Your task to perform on an android device: turn off data saver in the chrome app Image 0: 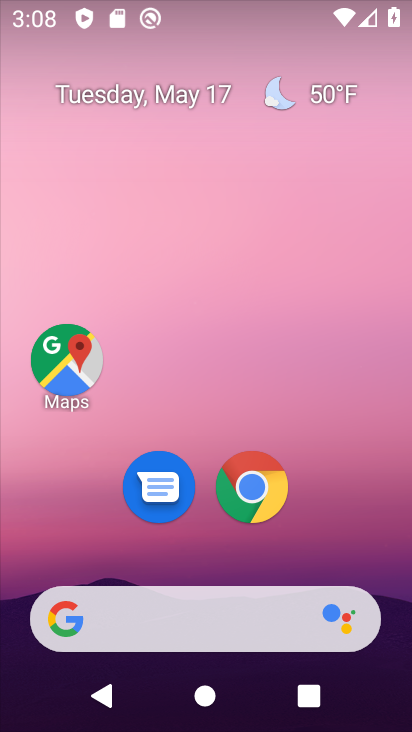
Step 0: click (250, 488)
Your task to perform on an android device: turn off data saver in the chrome app Image 1: 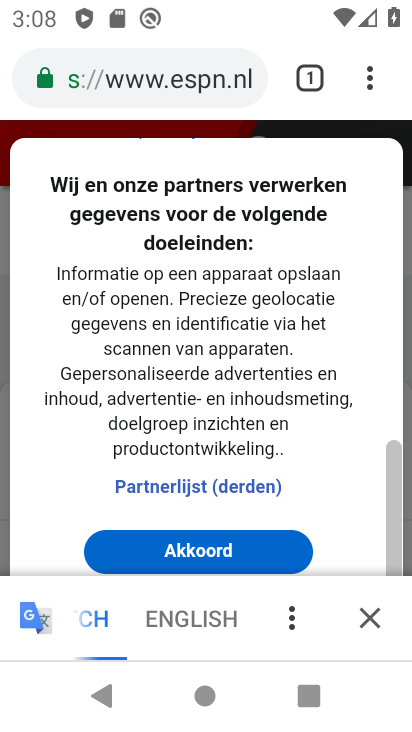
Step 1: click (375, 85)
Your task to perform on an android device: turn off data saver in the chrome app Image 2: 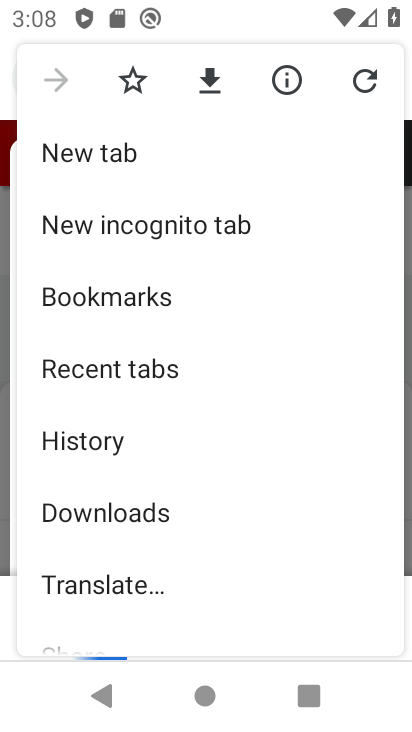
Step 2: drag from (212, 567) to (269, 253)
Your task to perform on an android device: turn off data saver in the chrome app Image 3: 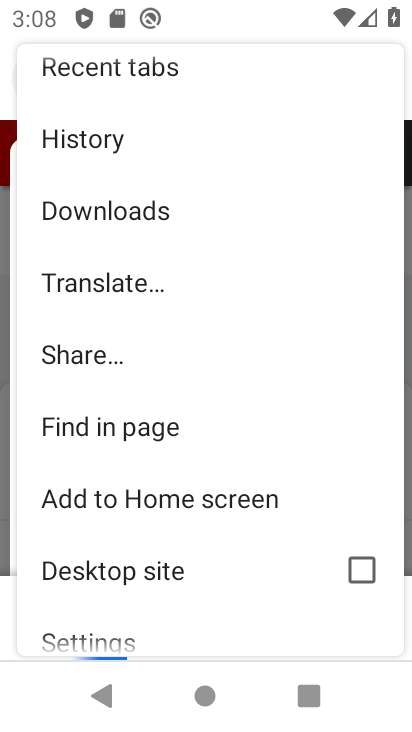
Step 3: drag from (321, 565) to (297, 220)
Your task to perform on an android device: turn off data saver in the chrome app Image 4: 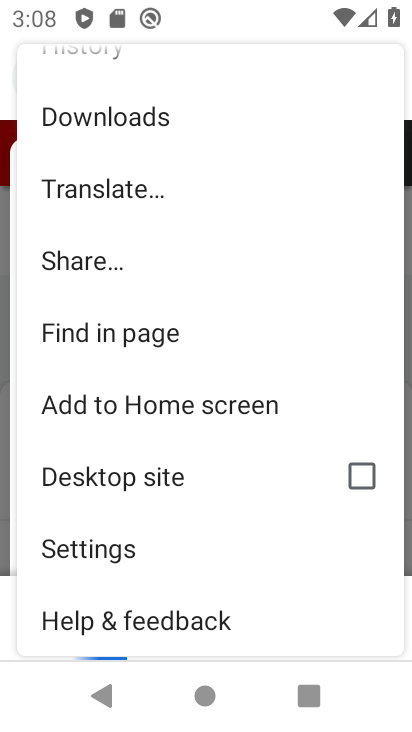
Step 4: click (90, 539)
Your task to perform on an android device: turn off data saver in the chrome app Image 5: 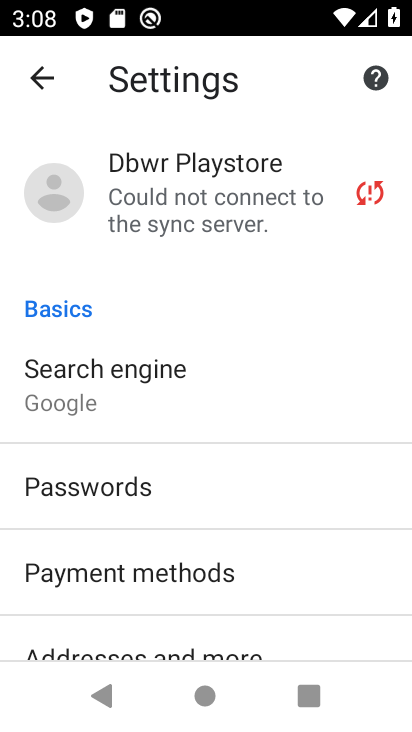
Step 5: drag from (300, 606) to (324, 86)
Your task to perform on an android device: turn off data saver in the chrome app Image 6: 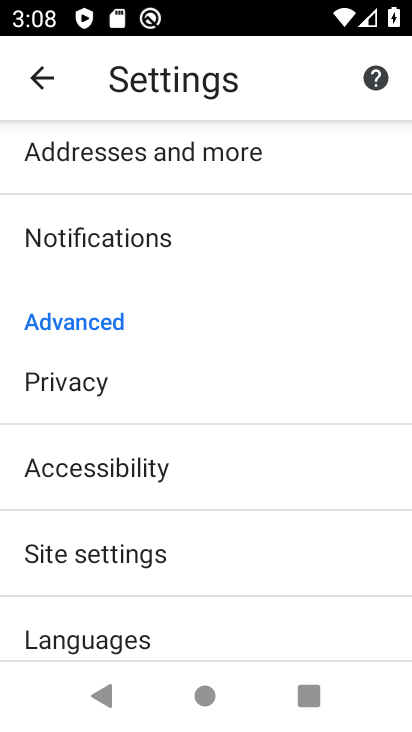
Step 6: drag from (226, 609) to (299, 128)
Your task to perform on an android device: turn off data saver in the chrome app Image 7: 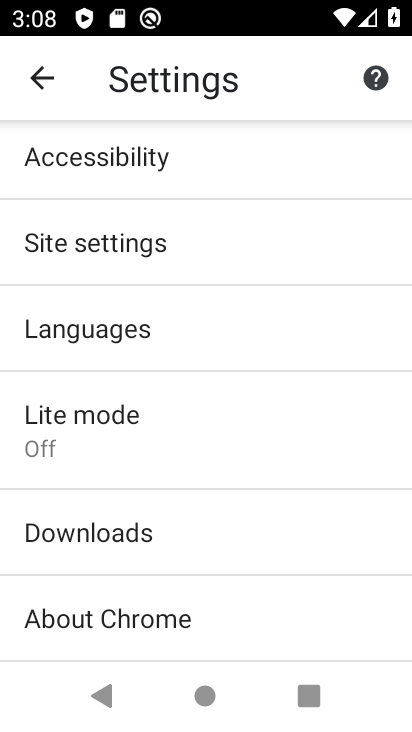
Step 7: click (49, 425)
Your task to perform on an android device: turn off data saver in the chrome app Image 8: 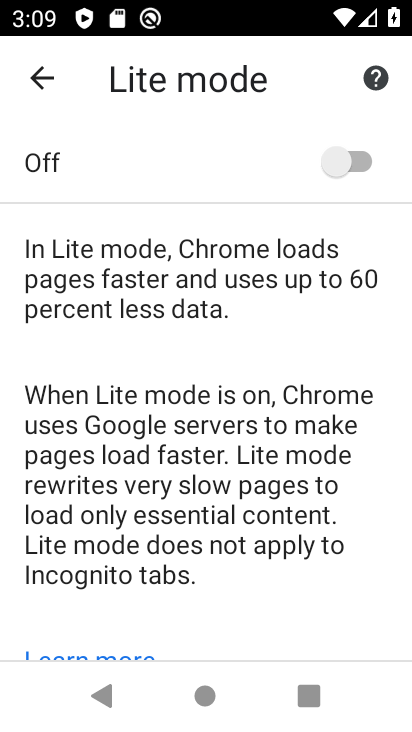
Step 8: task complete